Your task to perform on an android device: Look up the best rated gaming chair on Best Buy Image 0: 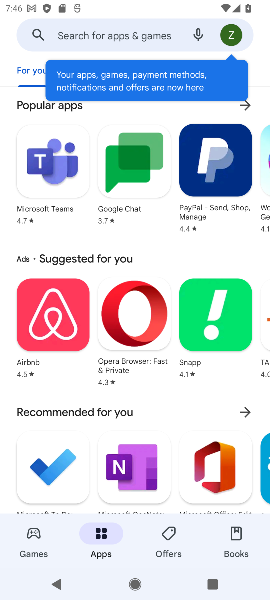
Step 0: press home button
Your task to perform on an android device: Look up the best rated gaming chair on Best Buy Image 1: 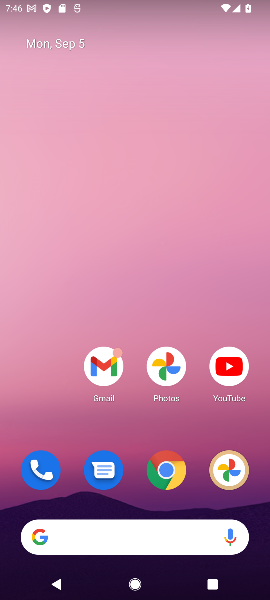
Step 1: drag from (135, 499) to (160, 14)
Your task to perform on an android device: Look up the best rated gaming chair on Best Buy Image 2: 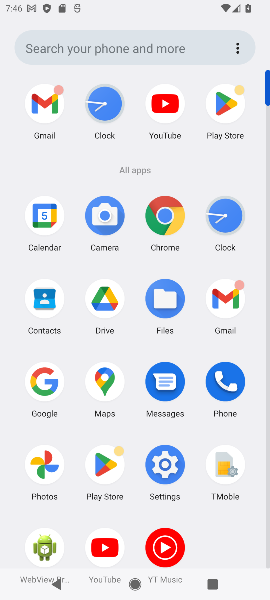
Step 2: click (172, 215)
Your task to perform on an android device: Look up the best rated gaming chair on Best Buy Image 3: 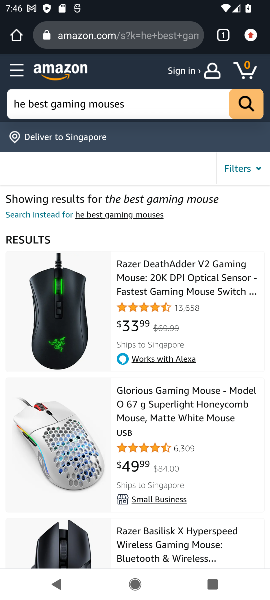
Step 3: click (156, 33)
Your task to perform on an android device: Look up the best rated gaming chair on Best Buy Image 4: 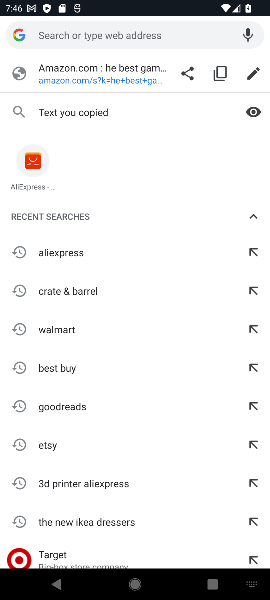
Step 4: type "Best Buy"
Your task to perform on an android device: Look up the best rated gaming chair on Best Buy Image 5: 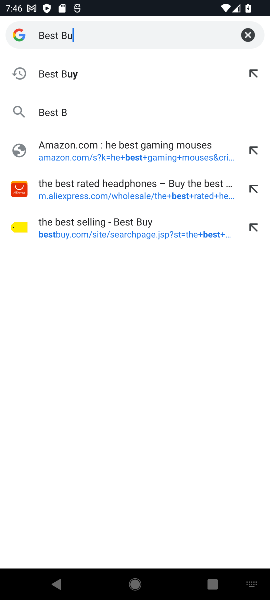
Step 5: type ""
Your task to perform on an android device: Look up the best rated gaming chair on Best Buy Image 6: 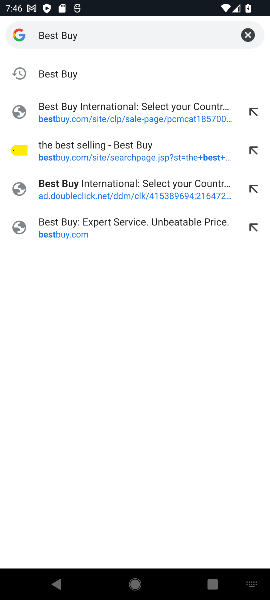
Step 6: click (55, 81)
Your task to perform on an android device: Look up the best rated gaming chair on Best Buy Image 7: 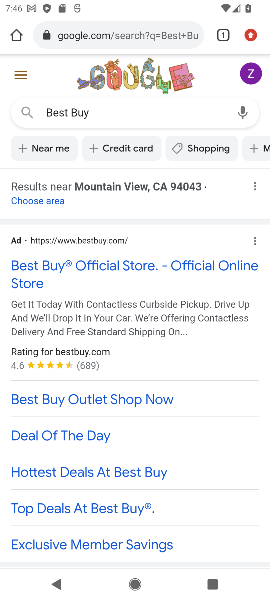
Step 7: click (79, 259)
Your task to perform on an android device: Look up the best rated gaming chair on Best Buy Image 8: 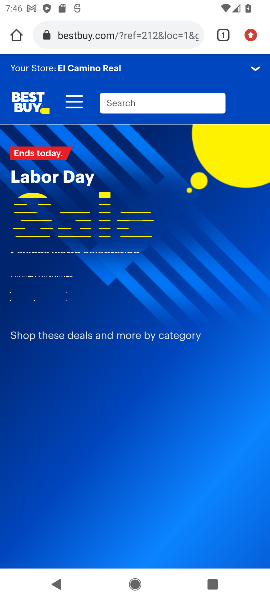
Step 8: click (121, 106)
Your task to perform on an android device: Look up the best rated gaming chair on Best Buy Image 9: 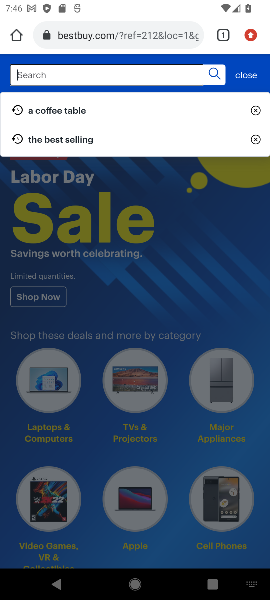
Step 9: type "the best rated gaming chair"
Your task to perform on an android device: Look up the best rated gaming chair on Best Buy Image 10: 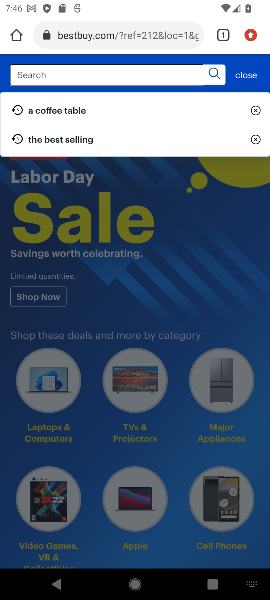
Step 10: type ""
Your task to perform on an android device: Look up the best rated gaming chair on Best Buy Image 11: 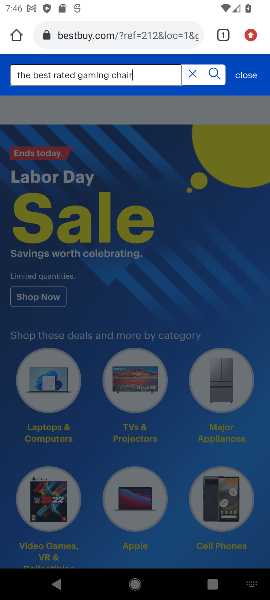
Step 11: click (214, 68)
Your task to perform on an android device: Look up the best rated gaming chair on Best Buy Image 12: 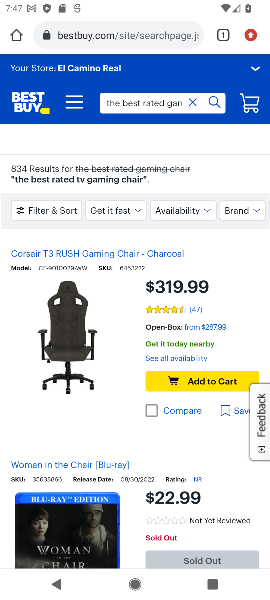
Step 12: task complete